Your task to perform on an android device: toggle translation in the chrome app Image 0: 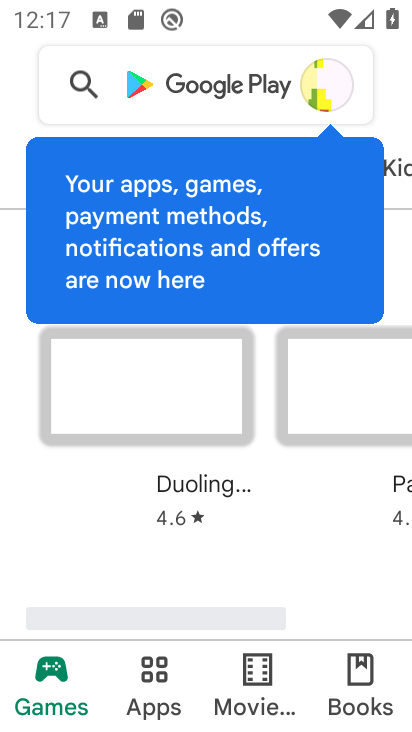
Step 0: press home button
Your task to perform on an android device: toggle translation in the chrome app Image 1: 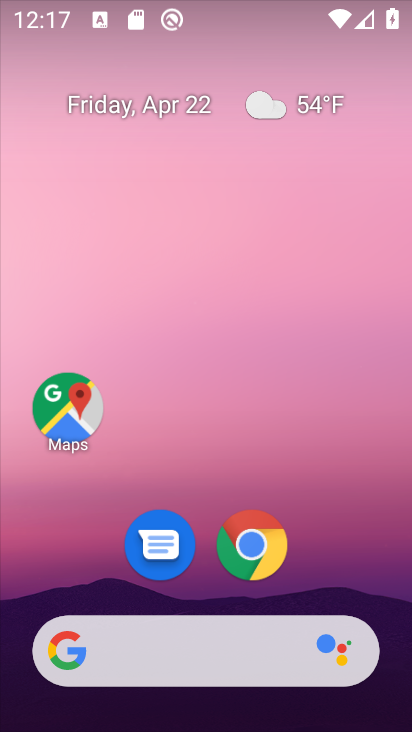
Step 1: click (272, 556)
Your task to perform on an android device: toggle translation in the chrome app Image 2: 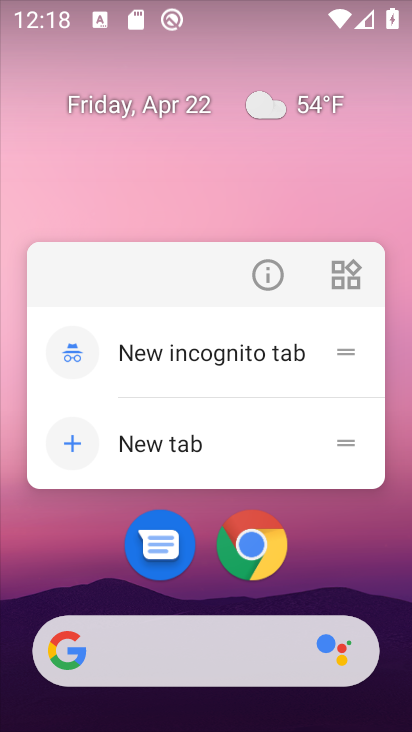
Step 2: click (274, 280)
Your task to perform on an android device: toggle translation in the chrome app Image 3: 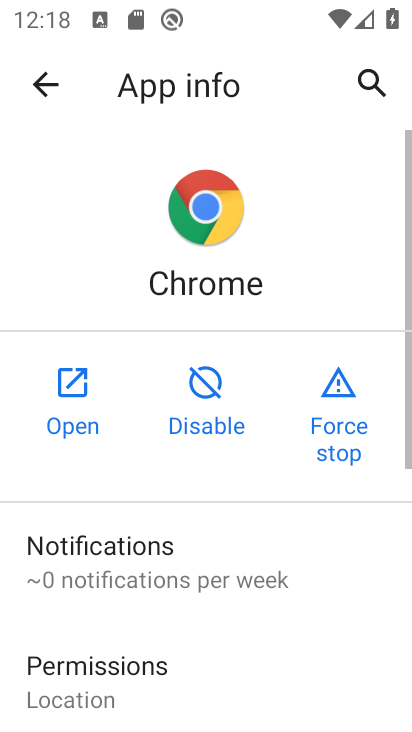
Step 3: click (97, 401)
Your task to perform on an android device: toggle translation in the chrome app Image 4: 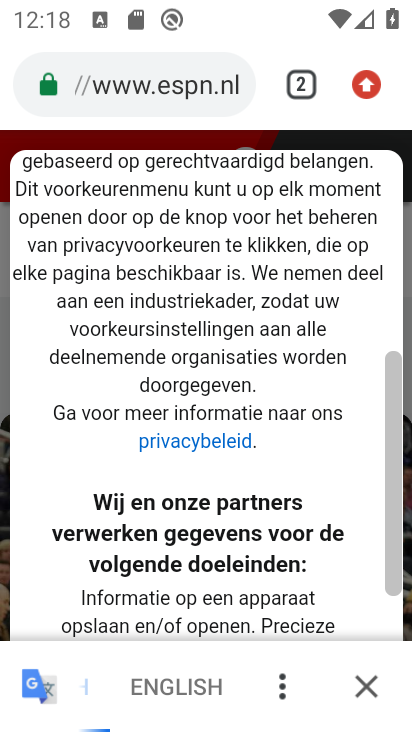
Step 4: click (370, 102)
Your task to perform on an android device: toggle translation in the chrome app Image 5: 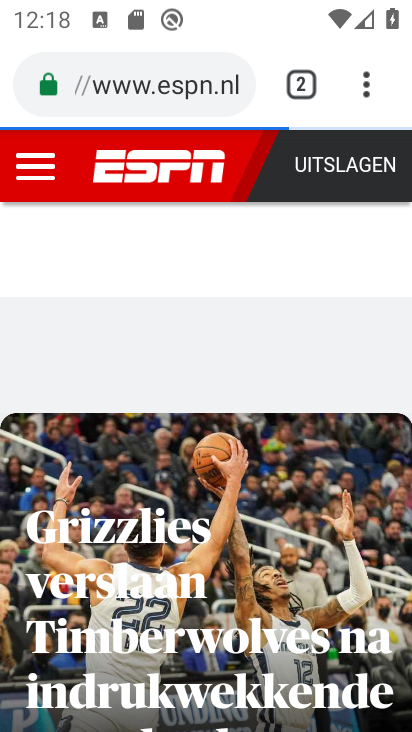
Step 5: click (383, 90)
Your task to perform on an android device: toggle translation in the chrome app Image 6: 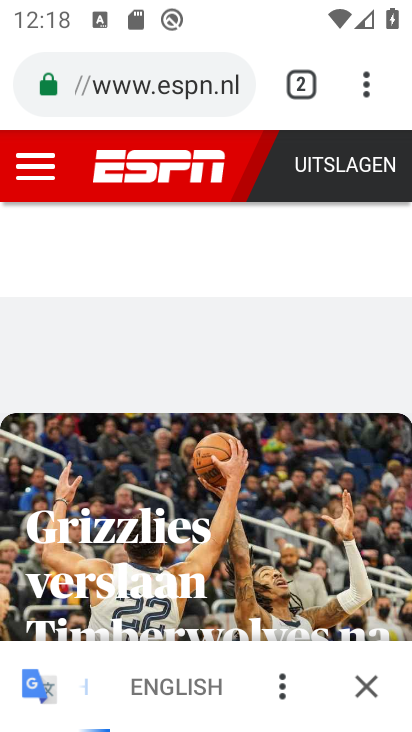
Step 6: click (362, 97)
Your task to perform on an android device: toggle translation in the chrome app Image 7: 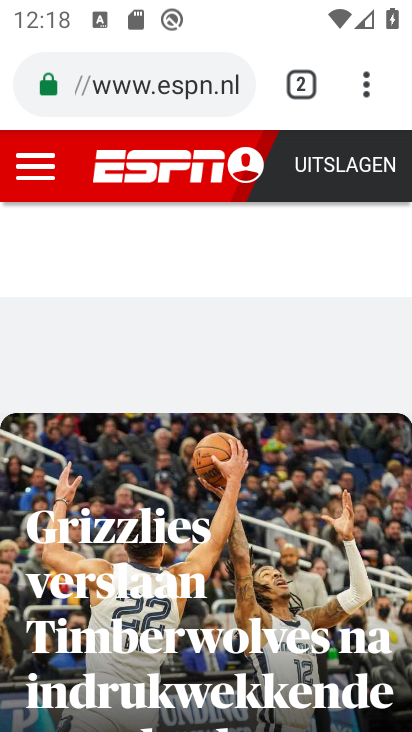
Step 7: click (364, 88)
Your task to perform on an android device: toggle translation in the chrome app Image 8: 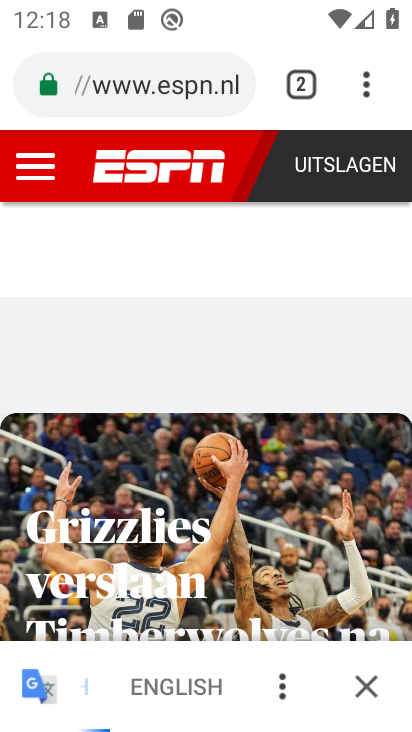
Step 8: click (371, 85)
Your task to perform on an android device: toggle translation in the chrome app Image 9: 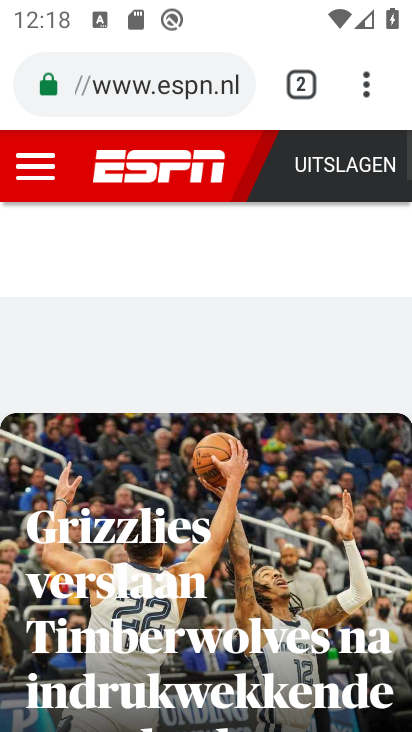
Step 9: click (369, 87)
Your task to perform on an android device: toggle translation in the chrome app Image 10: 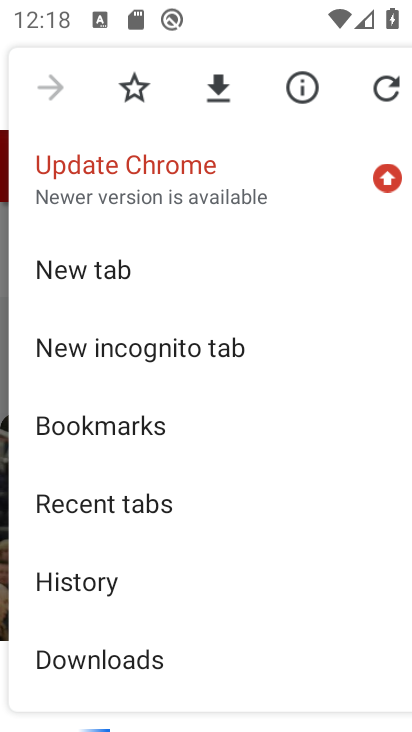
Step 10: drag from (268, 551) to (266, 241)
Your task to perform on an android device: toggle translation in the chrome app Image 11: 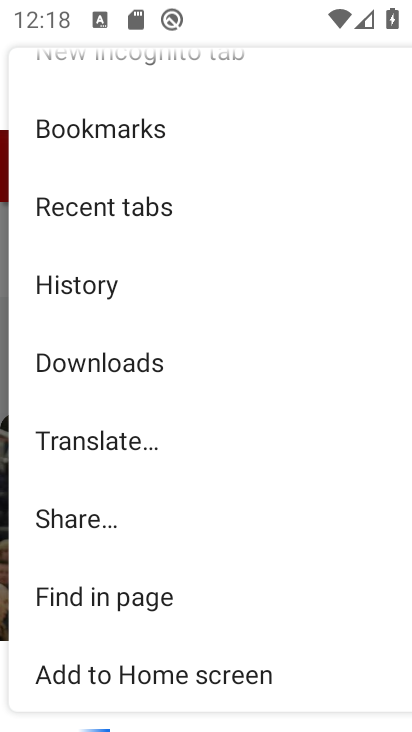
Step 11: drag from (160, 564) to (160, 295)
Your task to perform on an android device: toggle translation in the chrome app Image 12: 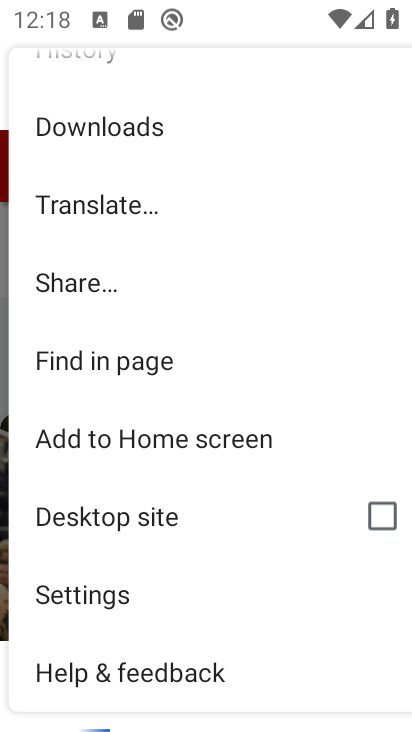
Step 12: click (101, 589)
Your task to perform on an android device: toggle translation in the chrome app Image 13: 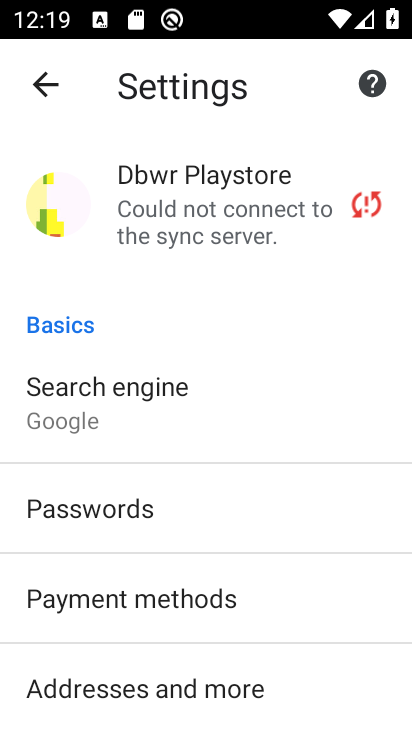
Step 13: drag from (140, 570) to (172, 243)
Your task to perform on an android device: toggle translation in the chrome app Image 14: 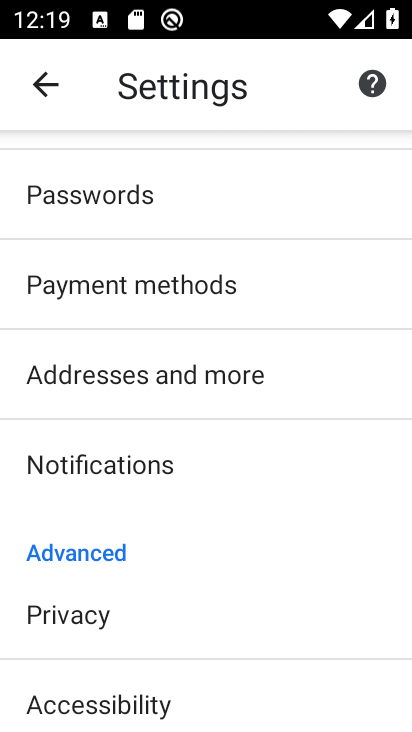
Step 14: drag from (181, 555) to (191, 308)
Your task to perform on an android device: toggle translation in the chrome app Image 15: 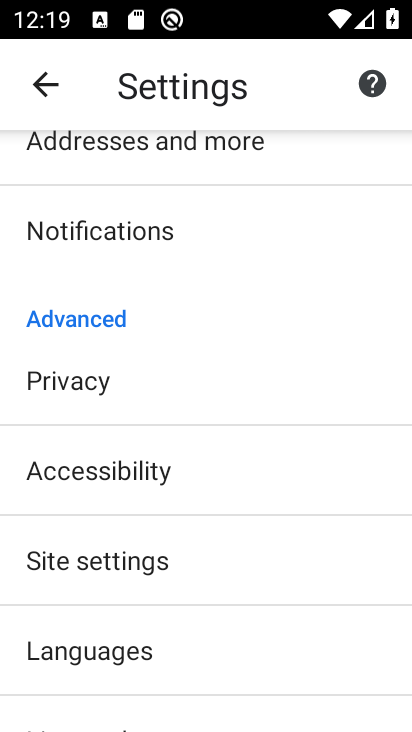
Step 15: click (133, 653)
Your task to perform on an android device: toggle translation in the chrome app Image 16: 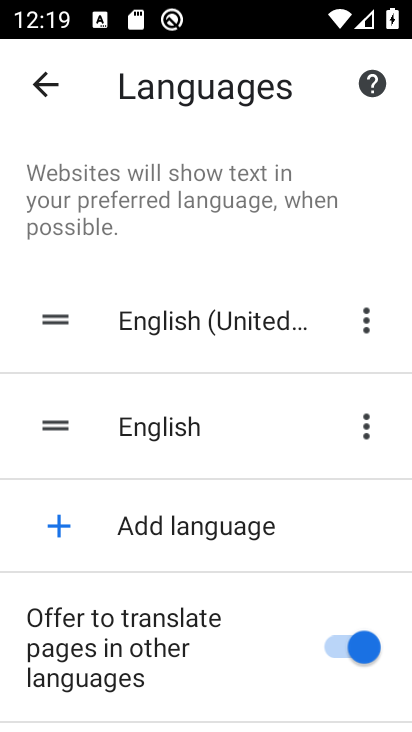
Step 16: click (326, 650)
Your task to perform on an android device: toggle translation in the chrome app Image 17: 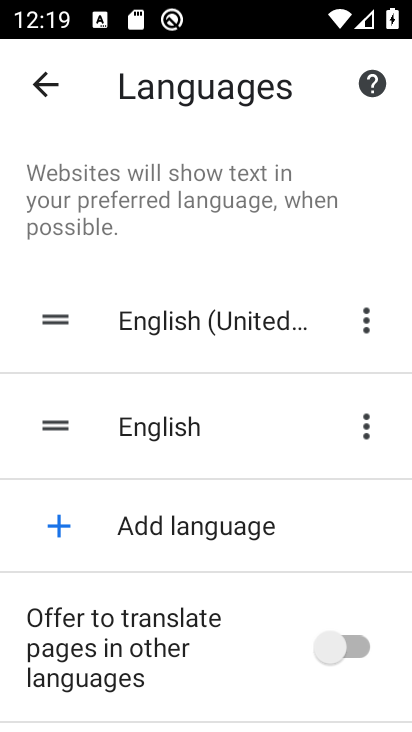
Step 17: task complete